Your task to perform on an android device: Open Google Image 0: 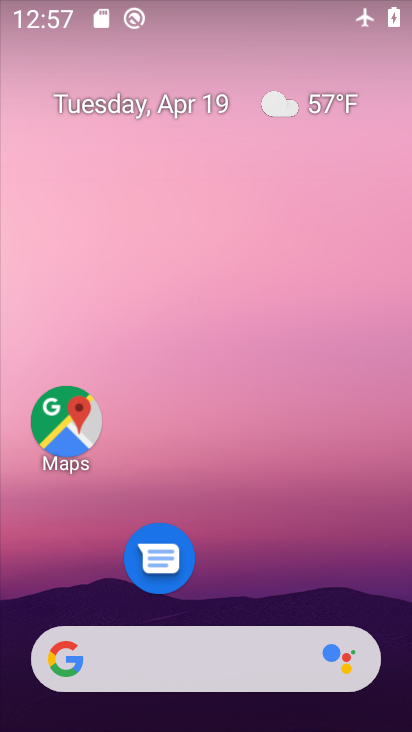
Step 0: drag from (292, 565) to (157, 114)
Your task to perform on an android device: Open Google Image 1: 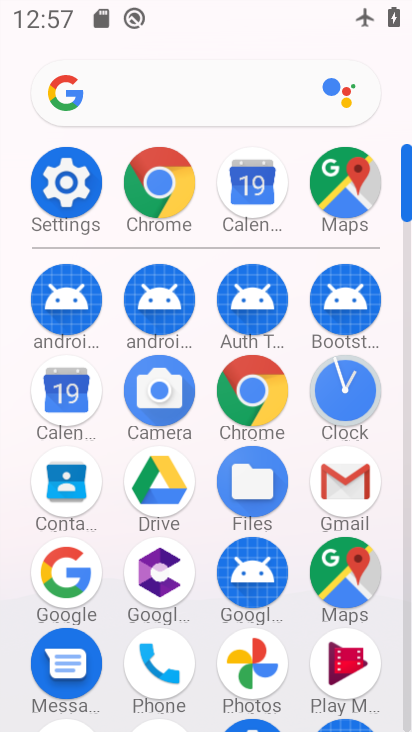
Step 1: click (61, 567)
Your task to perform on an android device: Open Google Image 2: 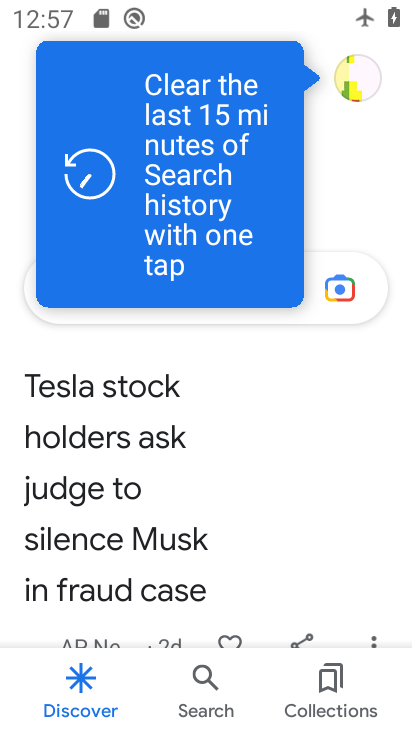
Step 2: task complete